Your task to perform on an android device: Go to sound settings Image 0: 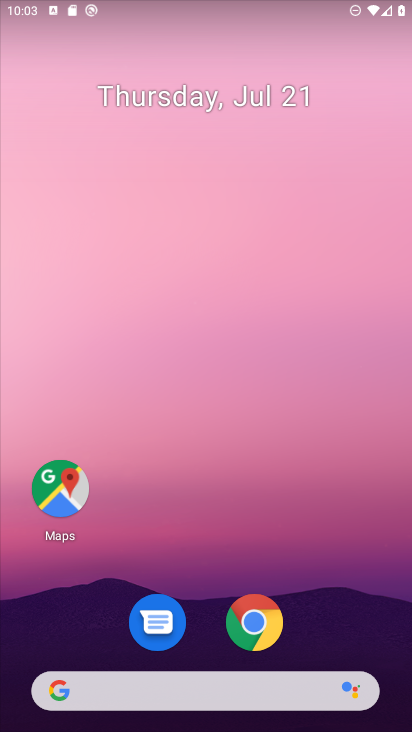
Step 0: drag from (257, 707) to (238, 55)
Your task to perform on an android device: Go to sound settings Image 1: 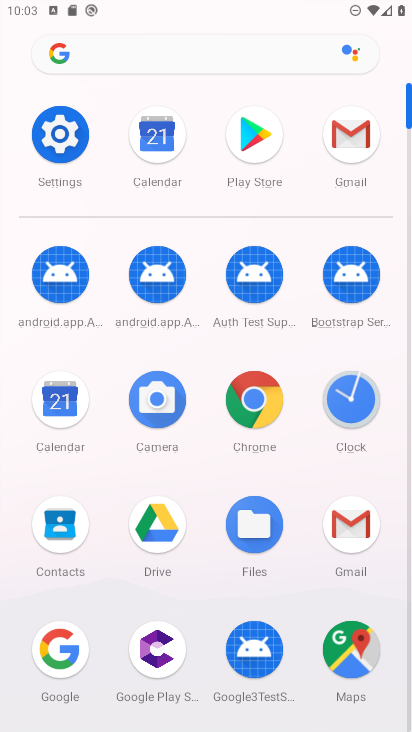
Step 1: click (60, 123)
Your task to perform on an android device: Go to sound settings Image 2: 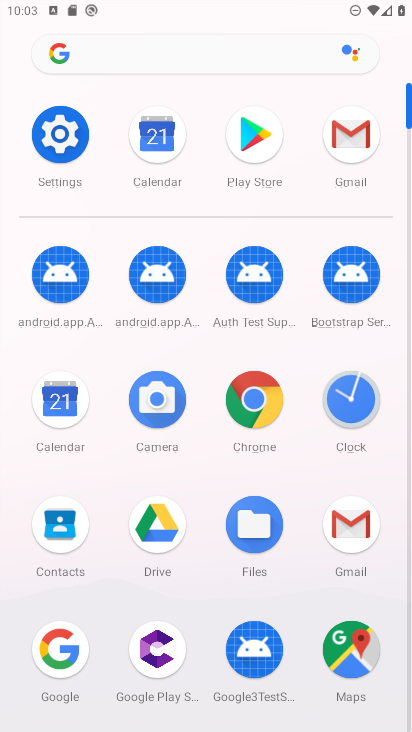
Step 2: click (60, 123)
Your task to perform on an android device: Go to sound settings Image 3: 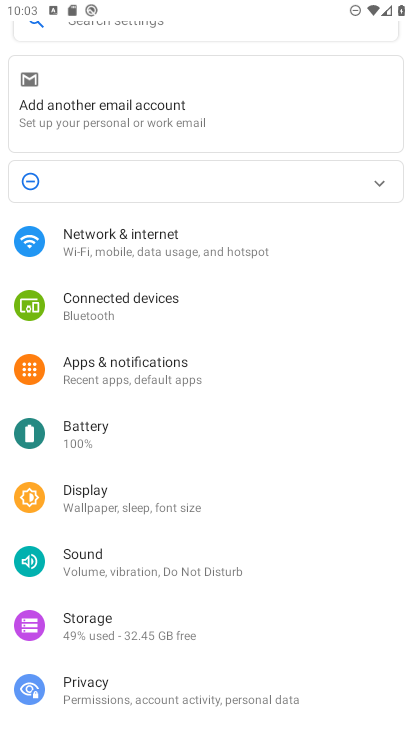
Step 3: click (119, 564)
Your task to perform on an android device: Go to sound settings Image 4: 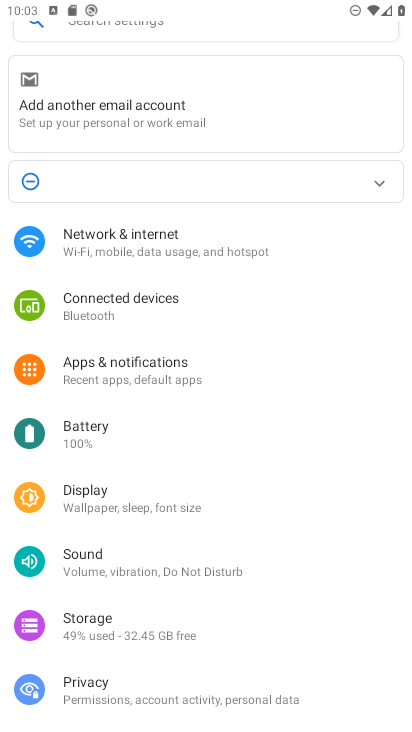
Step 4: click (119, 564)
Your task to perform on an android device: Go to sound settings Image 5: 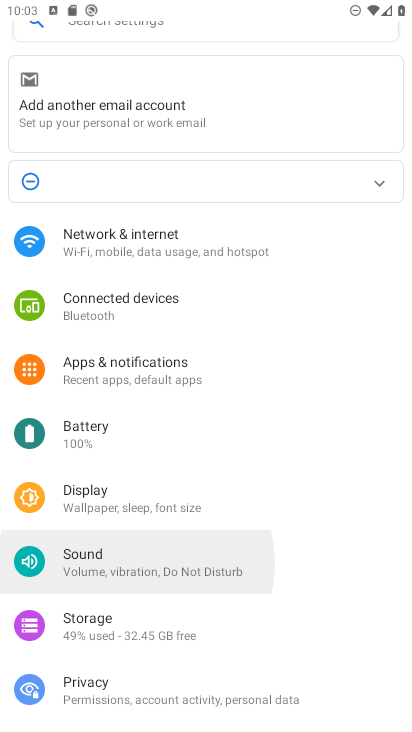
Step 5: click (119, 564)
Your task to perform on an android device: Go to sound settings Image 6: 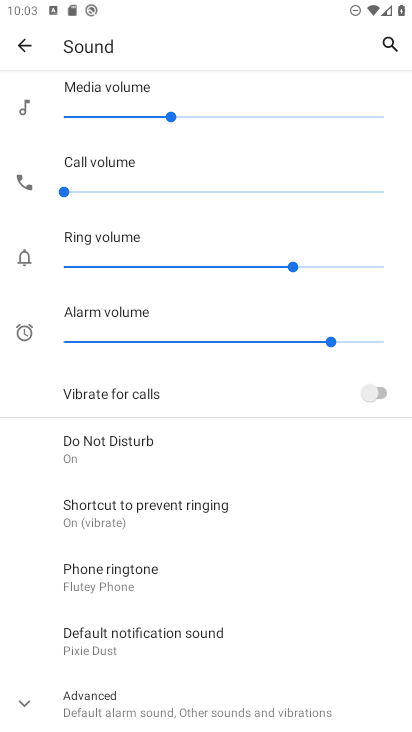
Step 6: task complete